Your task to perform on an android device: Go to Wikipedia Image 0: 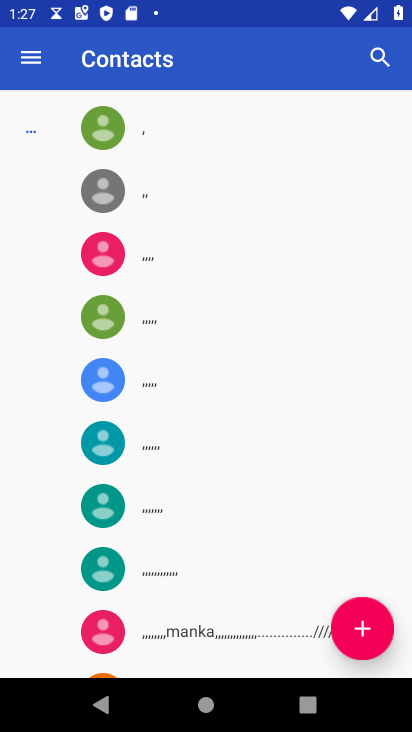
Step 0: press home button
Your task to perform on an android device: Go to Wikipedia Image 1: 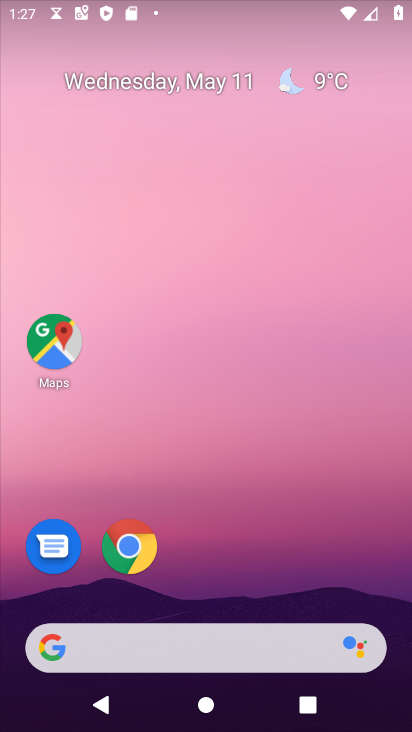
Step 1: drag from (245, 622) to (269, 28)
Your task to perform on an android device: Go to Wikipedia Image 2: 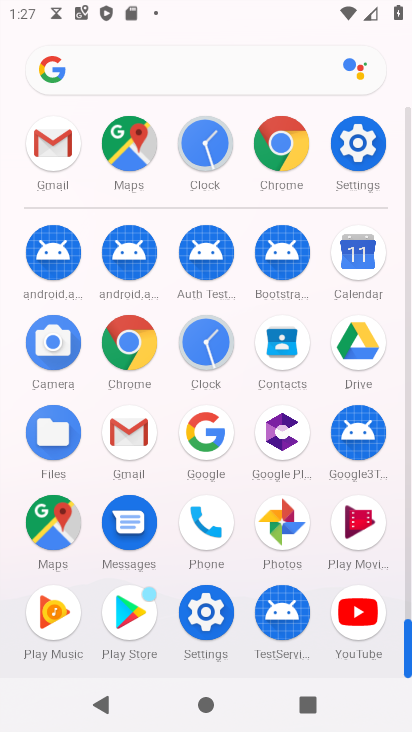
Step 2: click (143, 351)
Your task to perform on an android device: Go to Wikipedia Image 3: 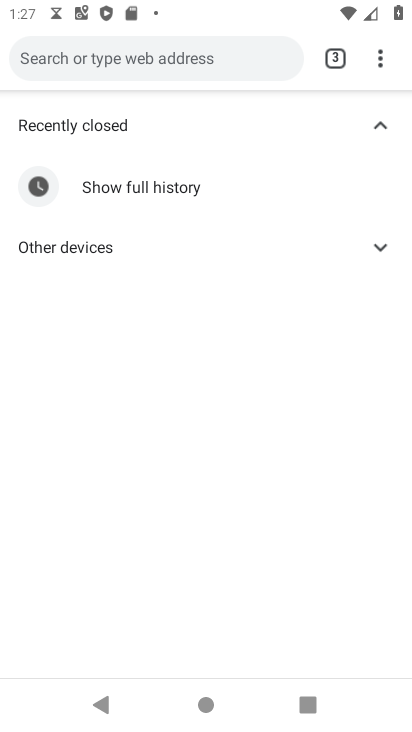
Step 3: click (157, 60)
Your task to perform on an android device: Go to Wikipedia Image 4: 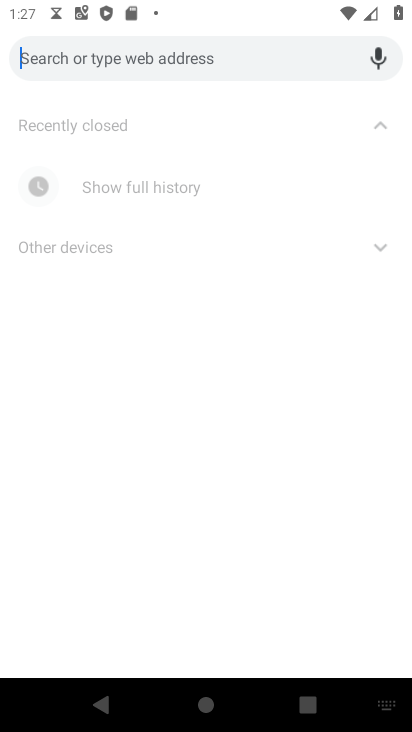
Step 4: type "wikipedia"
Your task to perform on an android device: Go to Wikipedia Image 5: 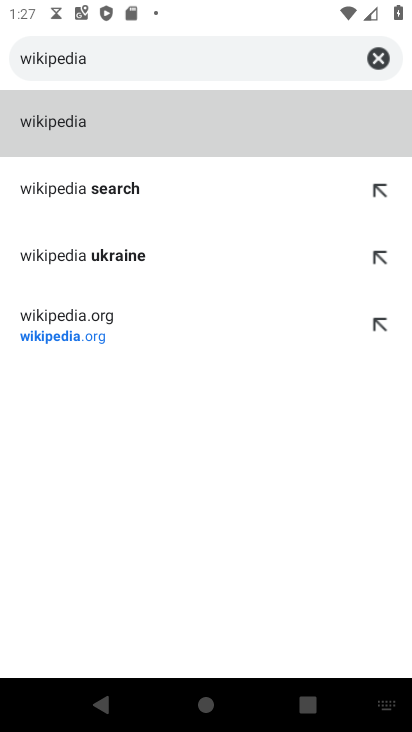
Step 5: click (136, 136)
Your task to perform on an android device: Go to Wikipedia Image 6: 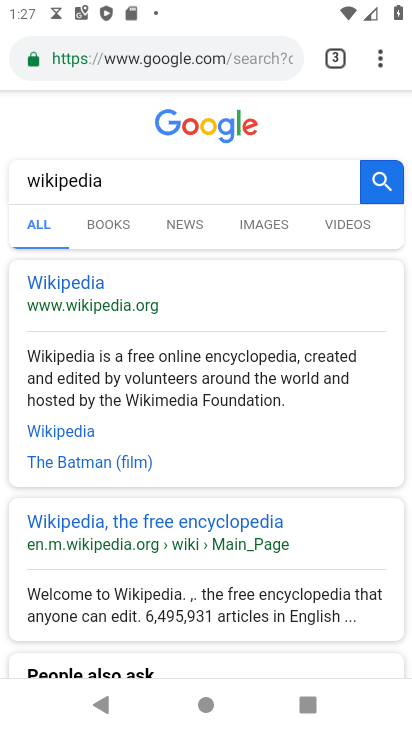
Step 6: task complete